Your task to perform on an android device: Check the news Image 0: 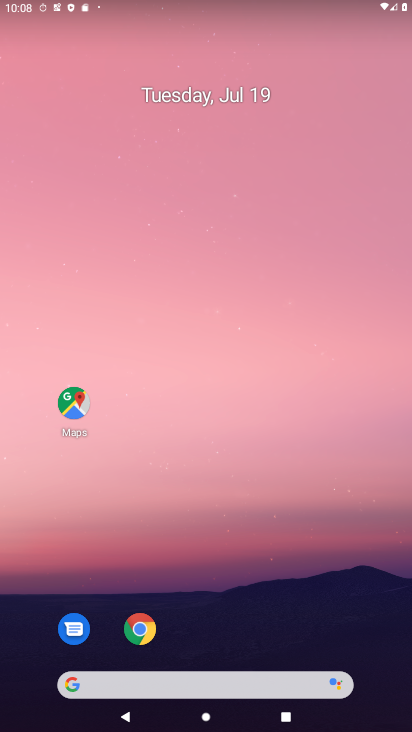
Step 0: click (217, 686)
Your task to perform on an android device: Check the news Image 1: 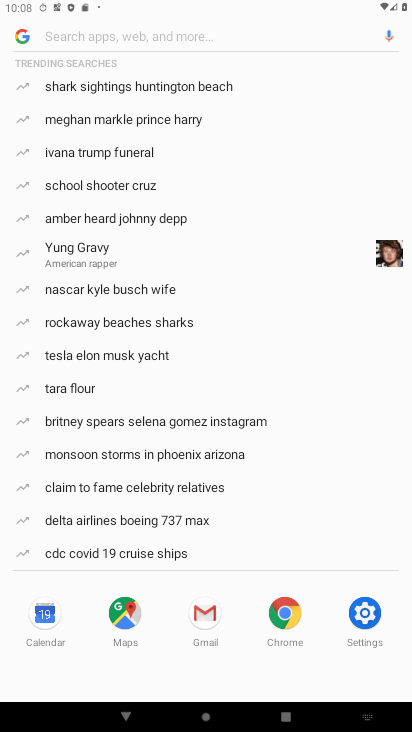
Step 1: type ""
Your task to perform on an android device: Check the news Image 2: 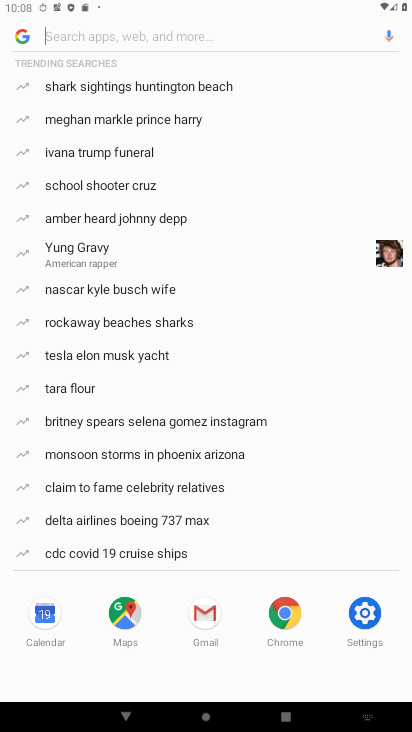
Step 2: type "news"
Your task to perform on an android device: Check the news Image 3: 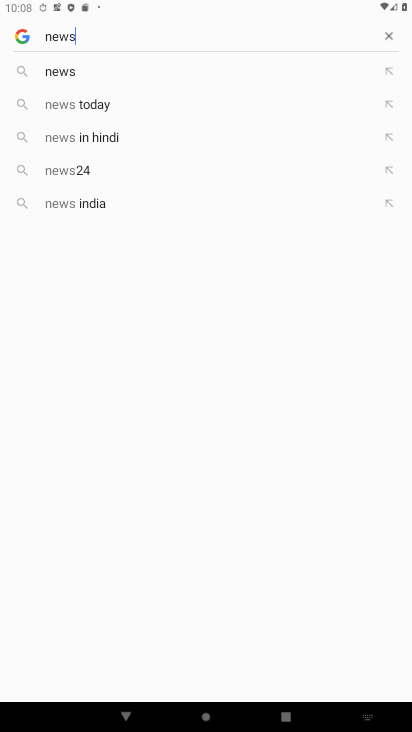
Step 3: click (93, 74)
Your task to perform on an android device: Check the news Image 4: 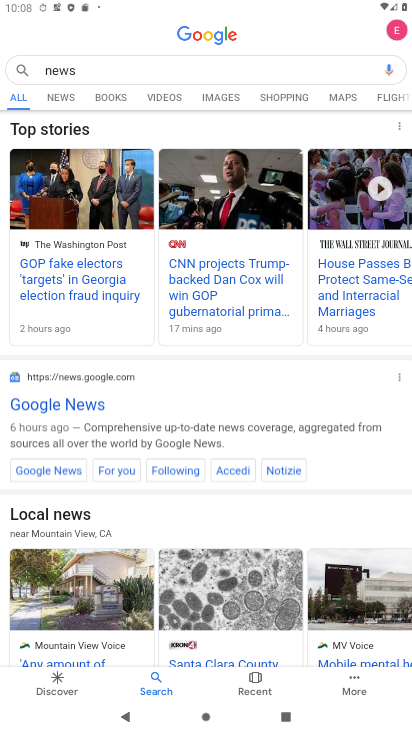
Step 4: task complete